Your task to perform on an android device: uninstall "Etsy: Buy & Sell Unique Items" Image 0: 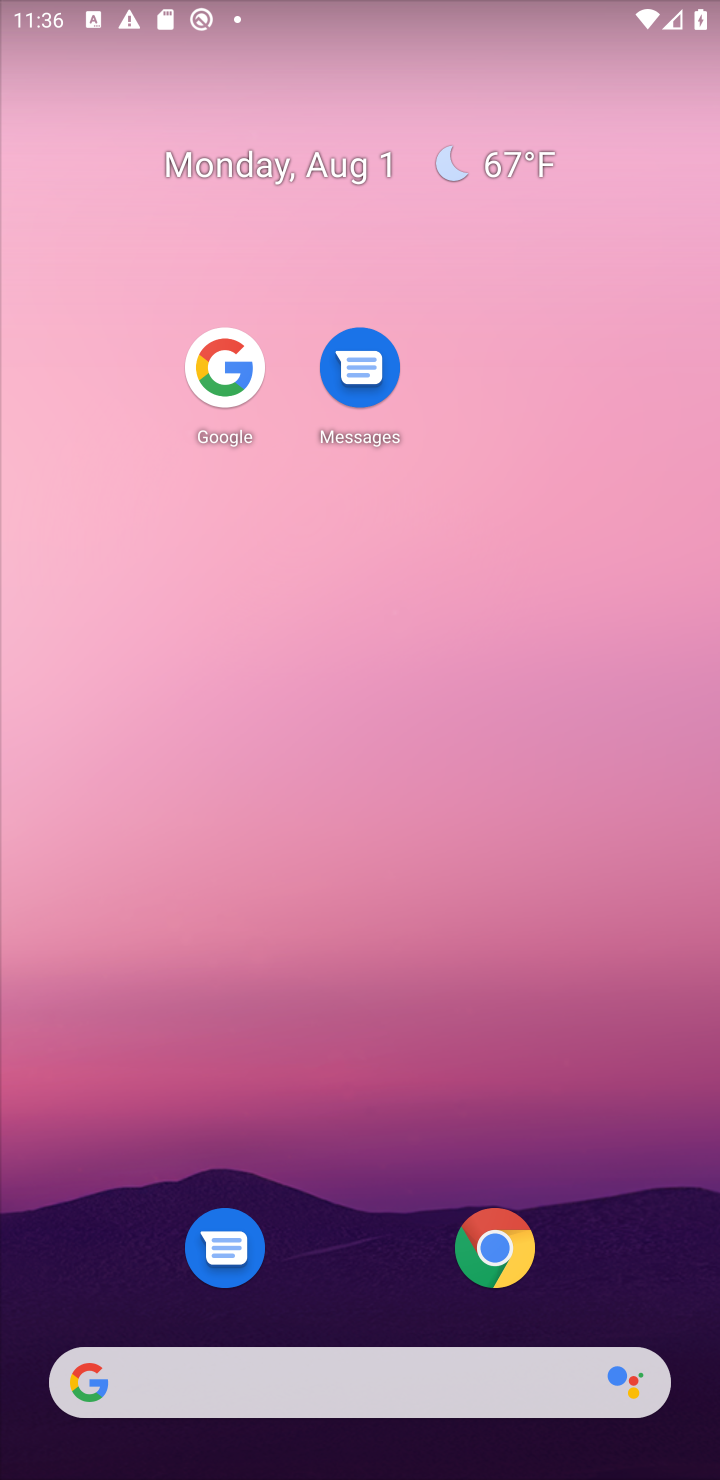
Step 0: drag from (375, 954) to (457, 0)
Your task to perform on an android device: uninstall "Etsy: Buy & Sell Unique Items" Image 1: 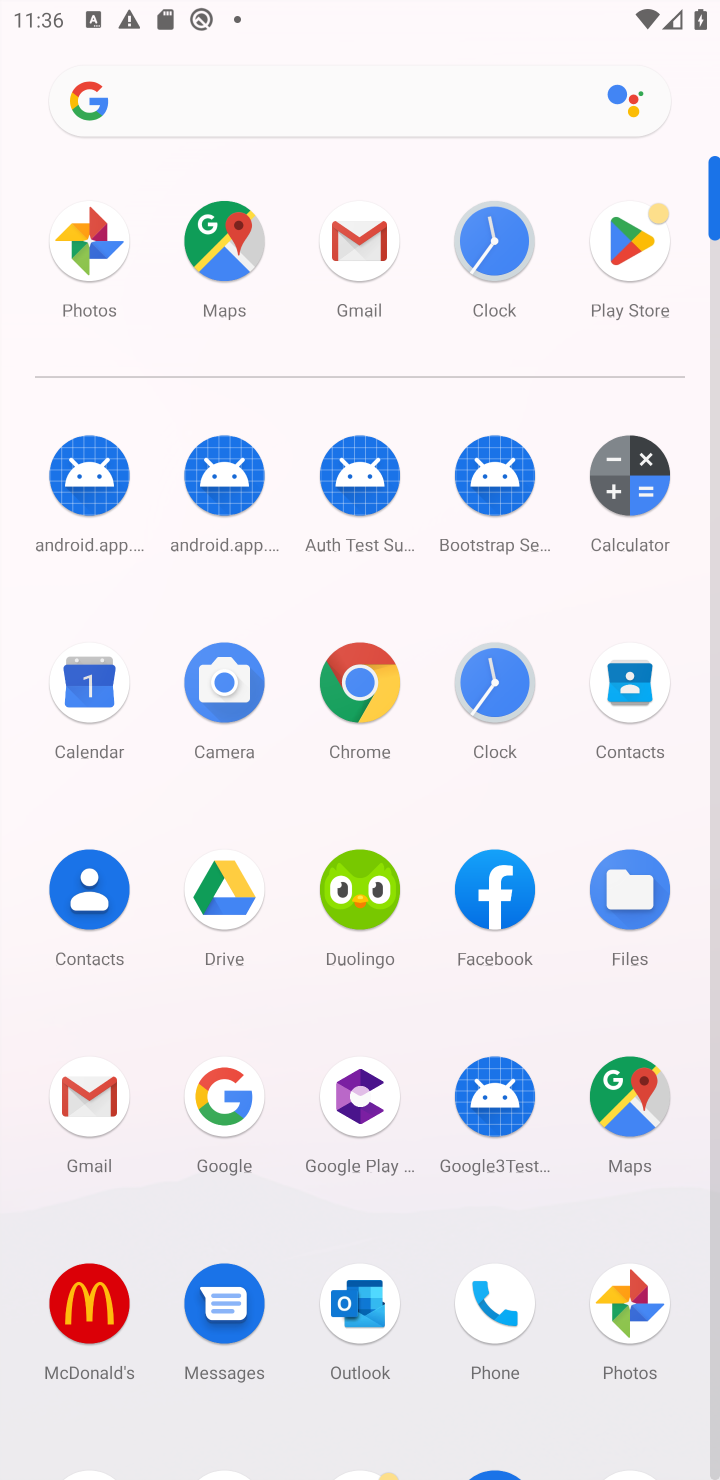
Step 1: drag from (289, 1202) to (380, 426)
Your task to perform on an android device: uninstall "Etsy: Buy & Sell Unique Items" Image 2: 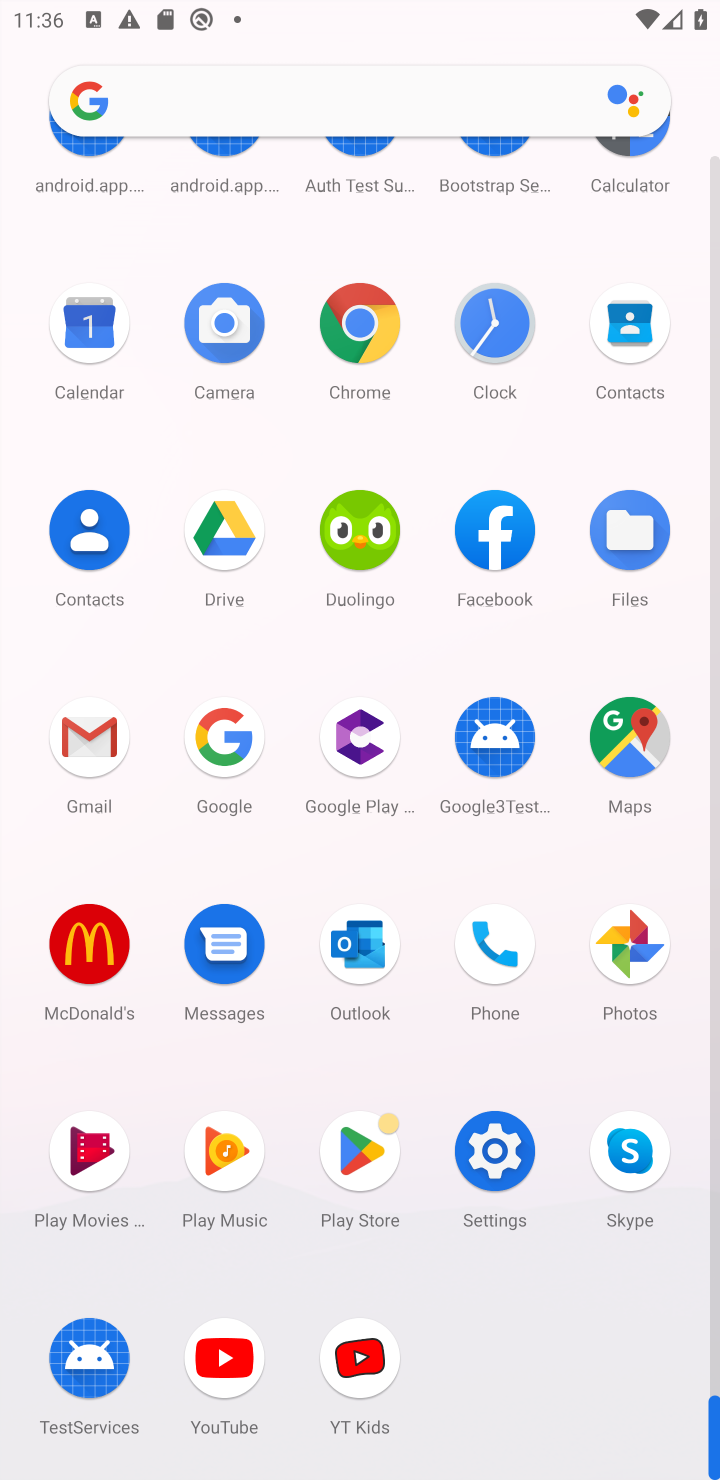
Step 2: click (377, 1143)
Your task to perform on an android device: uninstall "Etsy: Buy & Sell Unique Items" Image 3: 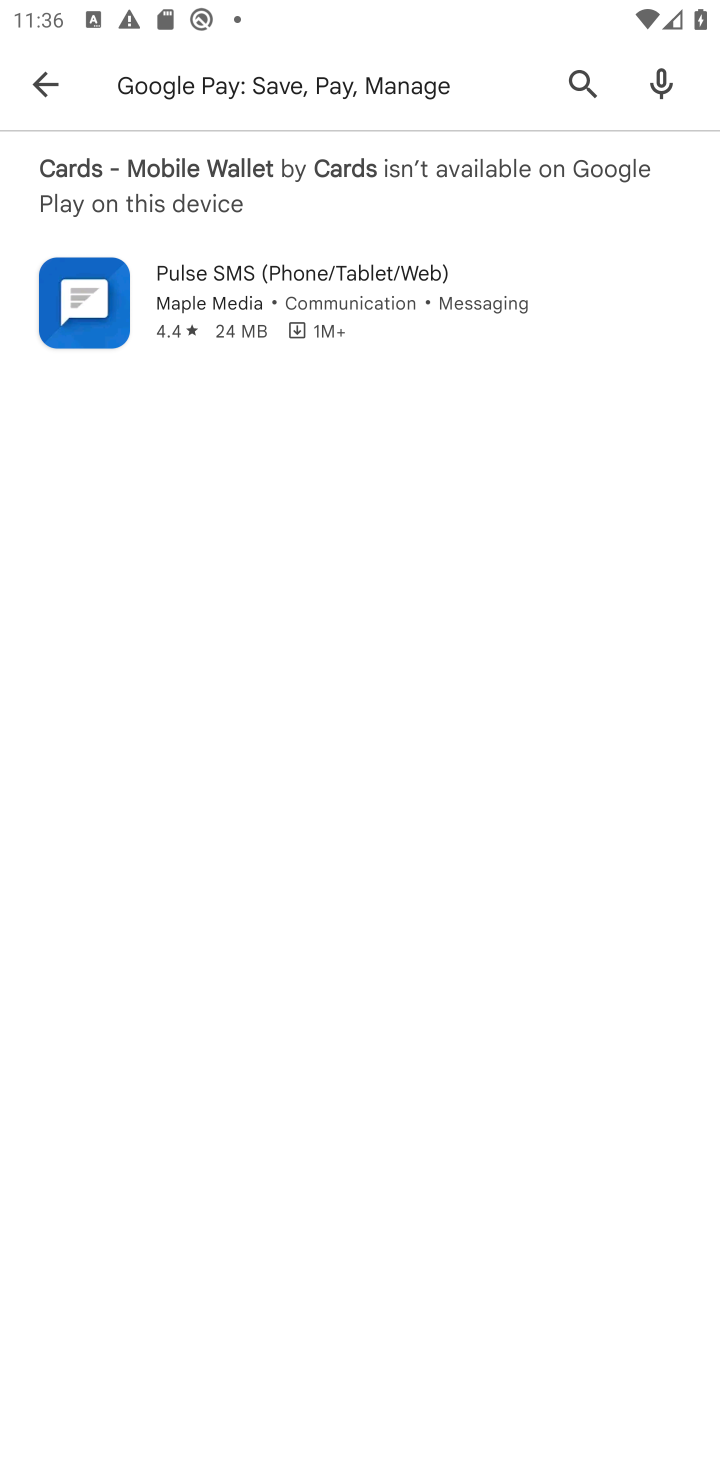
Step 3: click (226, 89)
Your task to perform on an android device: uninstall "Etsy: Buy & Sell Unique Items" Image 4: 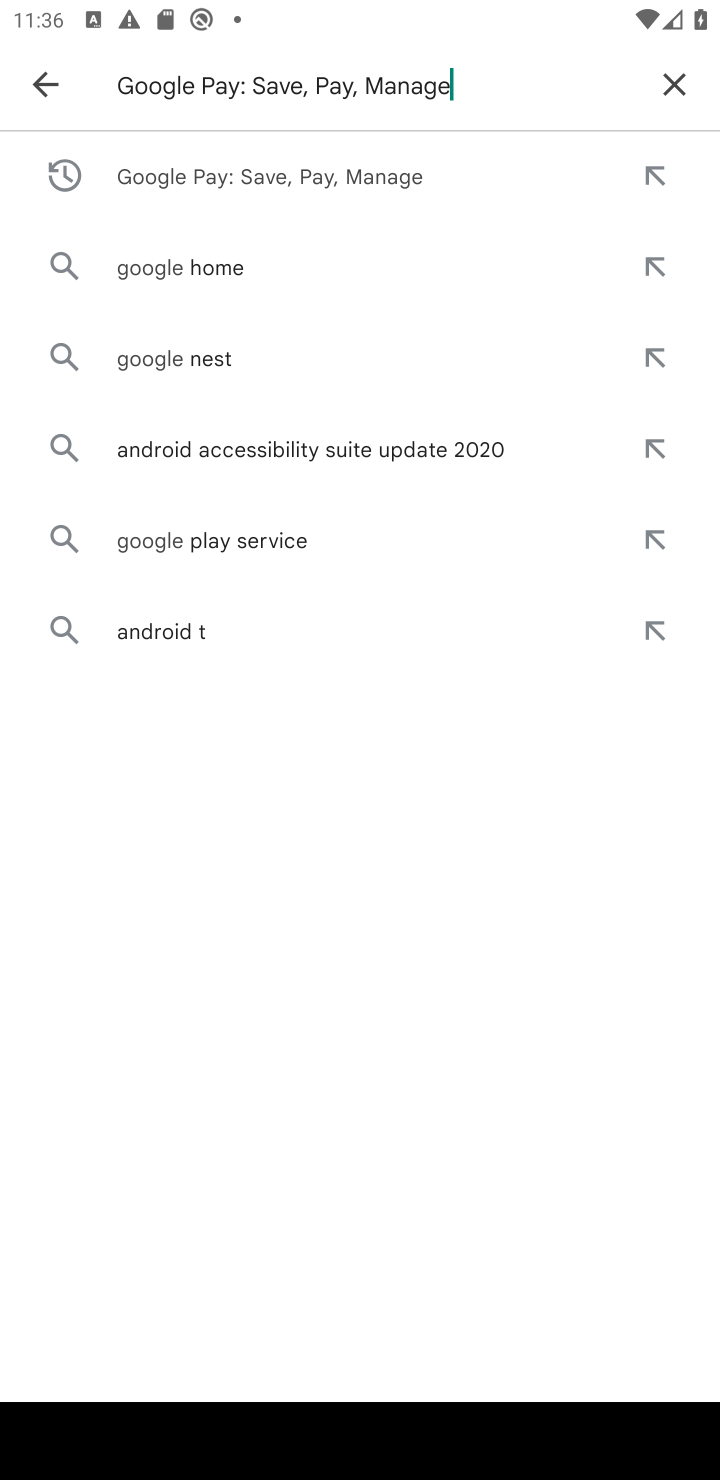
Step 4: click (665, 86)
Your task to perform on an android device: uninstall "Etsy: Buy & Sell Unique Items" Image 5: 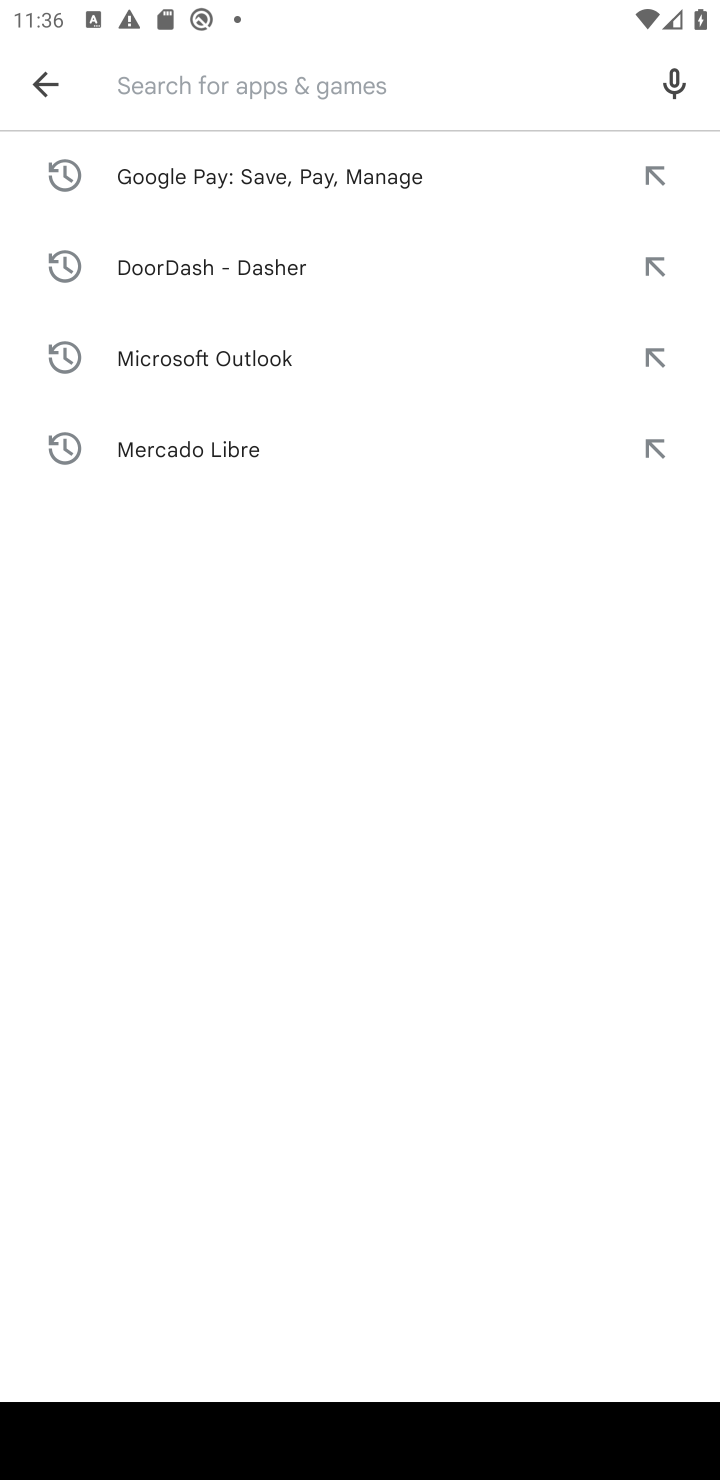
Step 5: type "Etsy: Buy & Sell Unique Items"
Your task to perform on an android device: uninstall "Etsy: Buy & Sell Unique Items" Image 6: 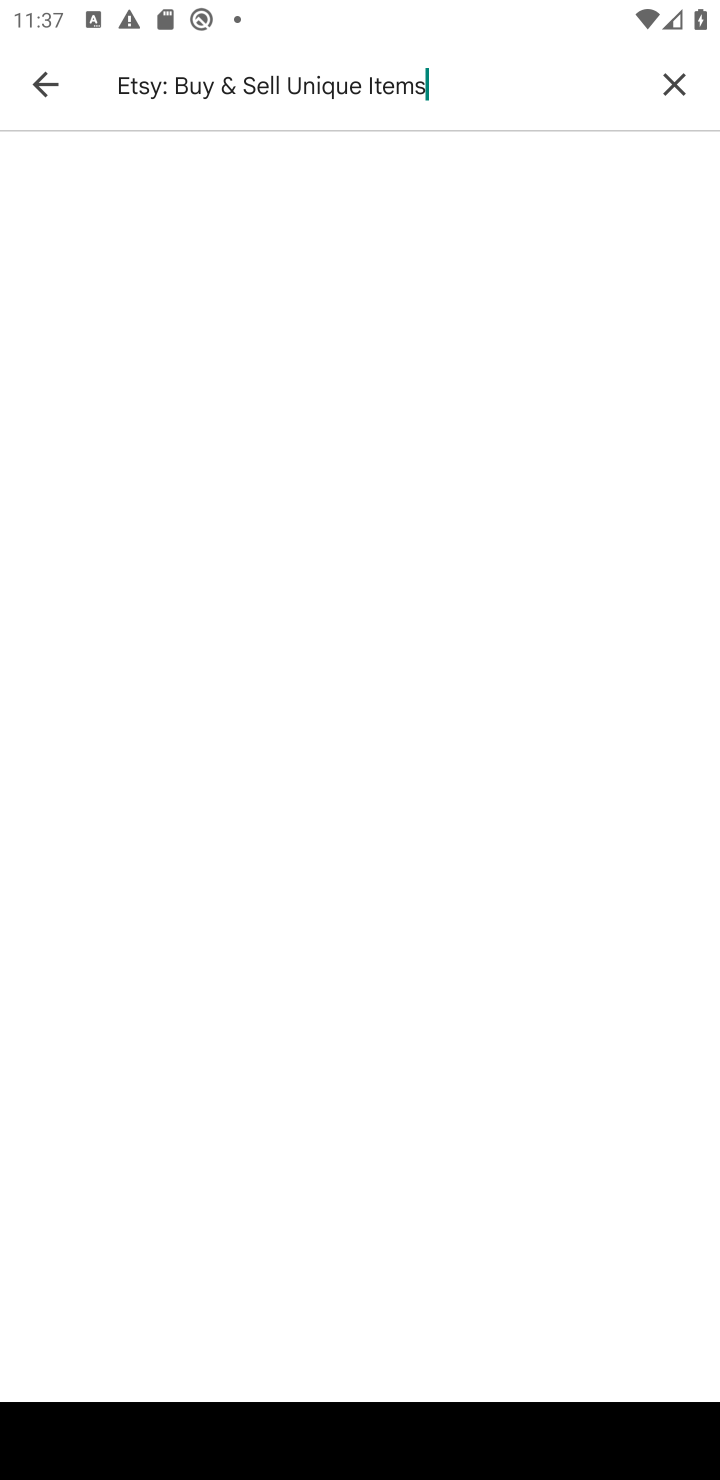
Step 6: press enter
Your task to perform on an android device: uninstall "Etsy: Buy & Sell Unique Items" Image 7: 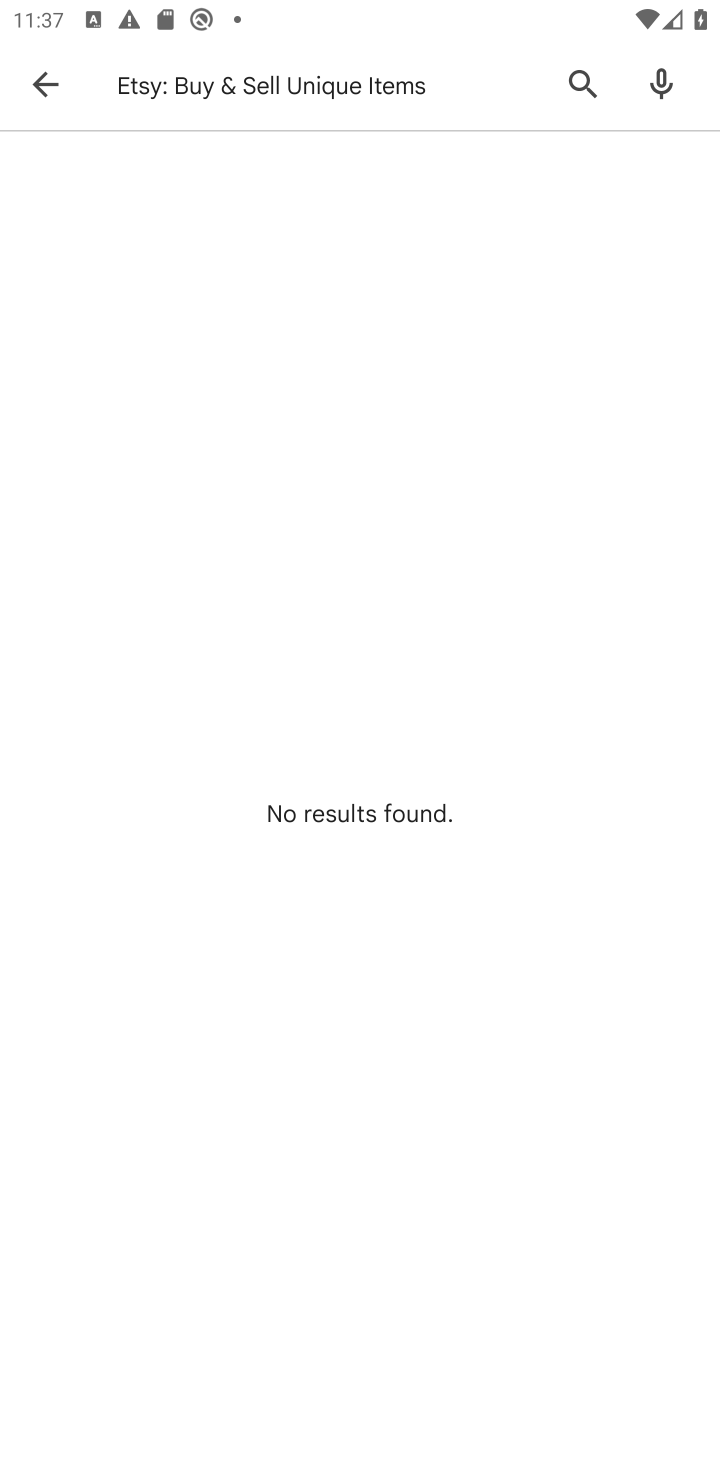
Step 7: task complete